Your task to perform on an android device: turn off sleep mode Image 0: 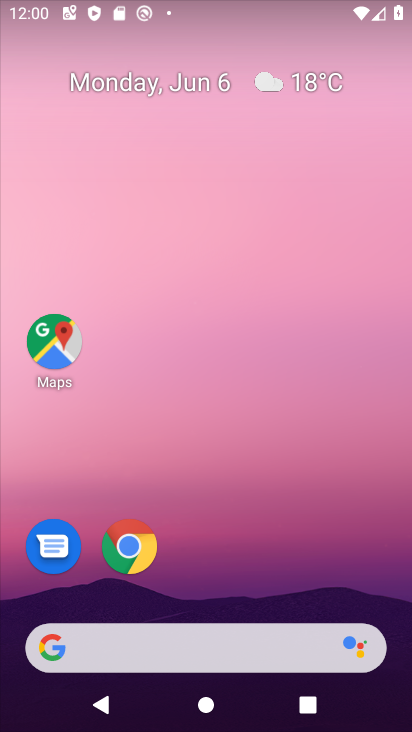
Step 0: drag from (286, 598) to (275, 153)
Your task to perform on an android device: turn off sleep mode Image 1: 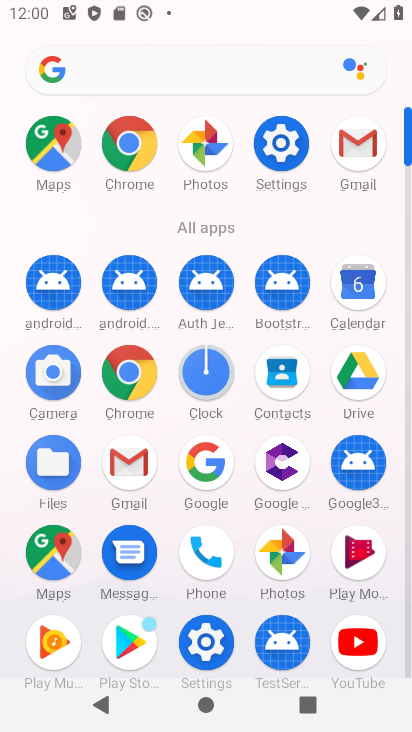
Step 1: click (279, 149)
Your task to perform on an android device: turn off sleep mode Image 2: 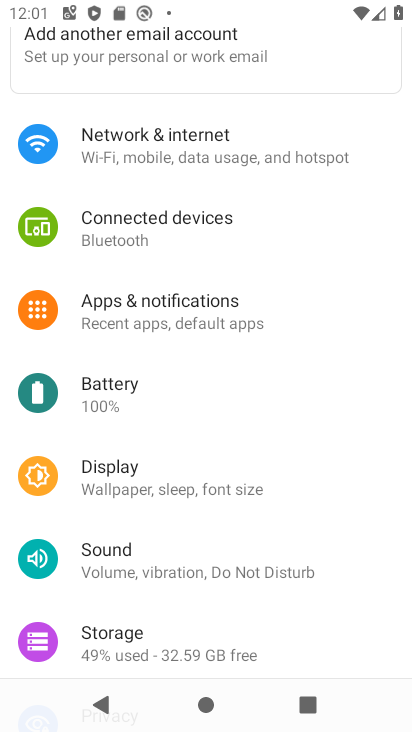
Step 2: click (134, 477)
Your task to perform on an android device: turn off sleep mode Image 3: 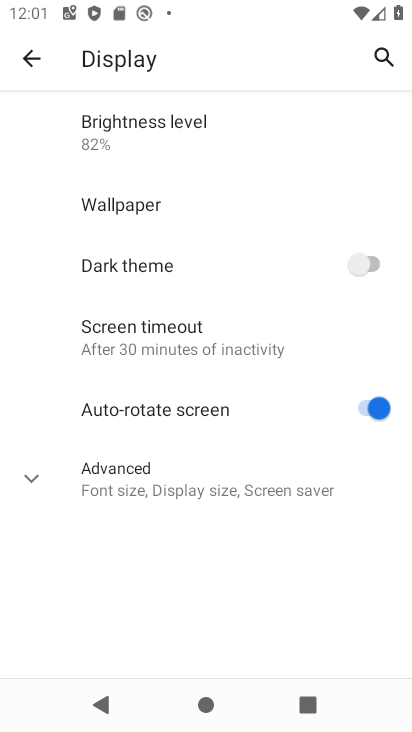
Step 3: click (27, 477)
Your task to perform on an android device: turn off sleep mode Image 4: 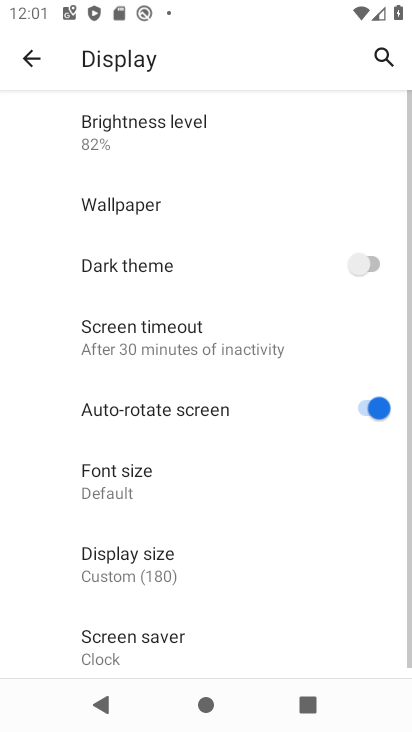
Step 4: task complete